Your task to perform on an android device: Open Google Image 0: 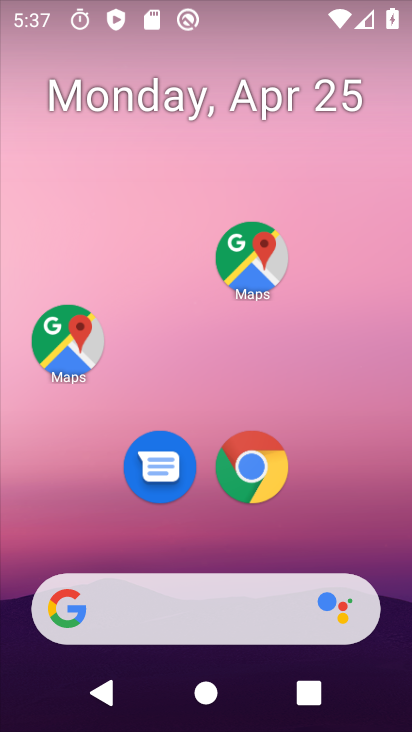
Step 0: drag from (311, 572) to (329, 47)
Your task to perform on an android device: Open Google Image 1: 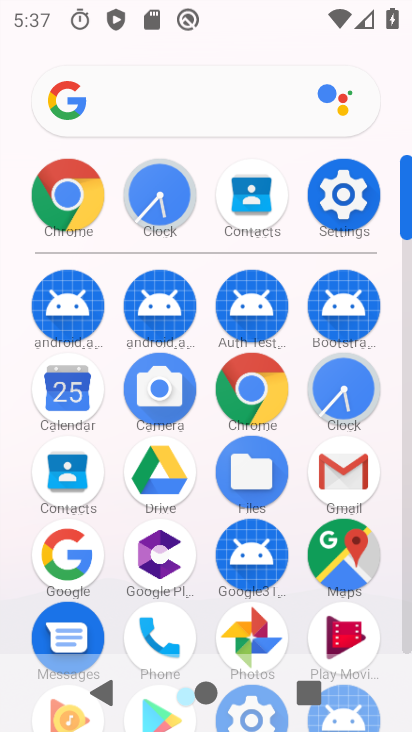
Step 1: drag from (291, 627) to (304, 233)
Your task to perform on an android device: Open Google Image 2: 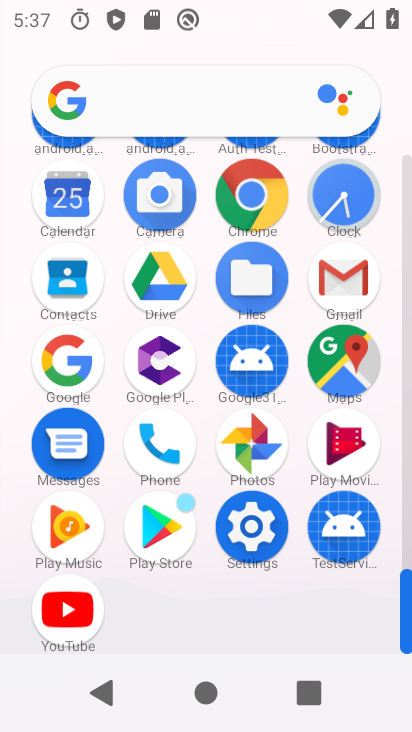
Step 2: click (252, 562)
Your task to perform on an android device: Open Google Image 3: 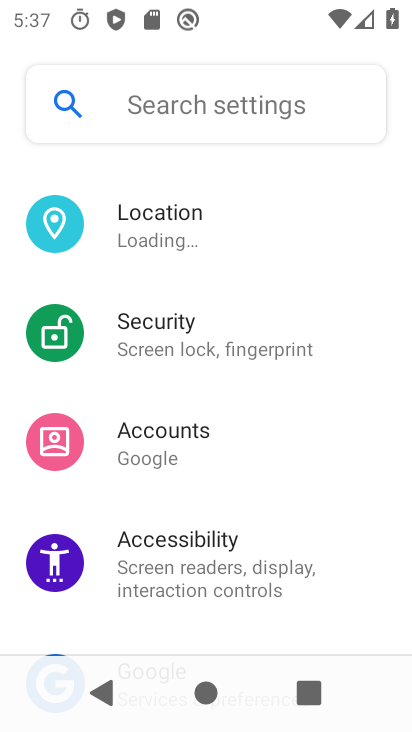
Step 3: press home button
Your task to perform on an android device: Open Google Image 4: 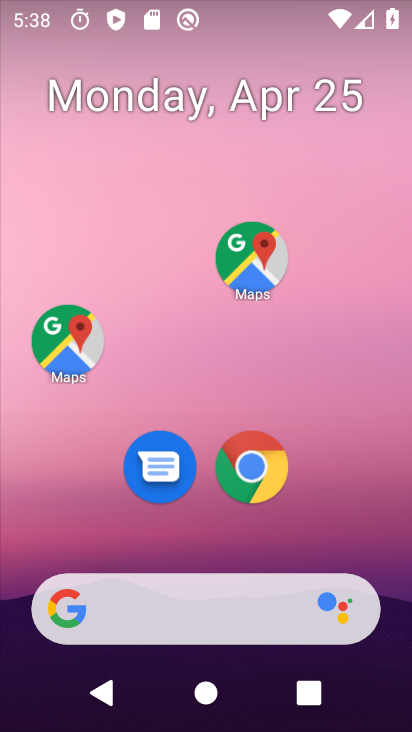
Step 4: drag from (286, 591) to (362, 154)
Your task to perform on an android device: Open Google Image 5: 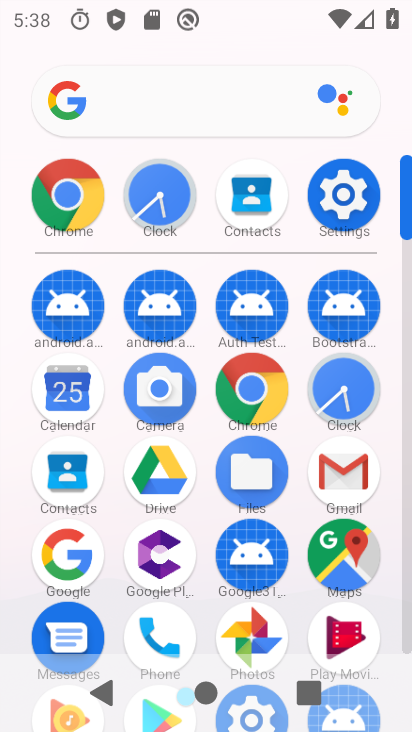
Step 5: click (263, 393)
Your task to perform on an android device: Open Google Image 6: 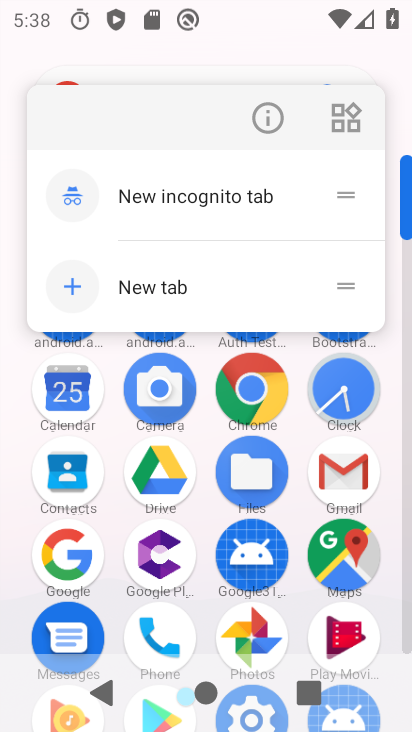
Step 6: click (263, 393)
Your task to perform on an android device: Open Google Image 7: 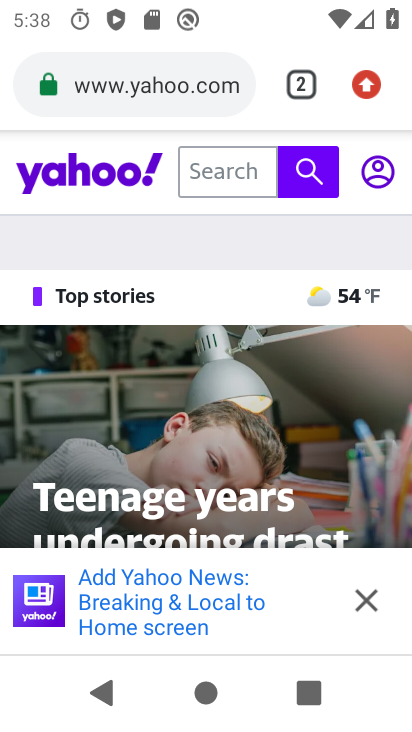
Step 7: task complete